Your task to perform on an android device: turn on translation in the chrome app Image 0: 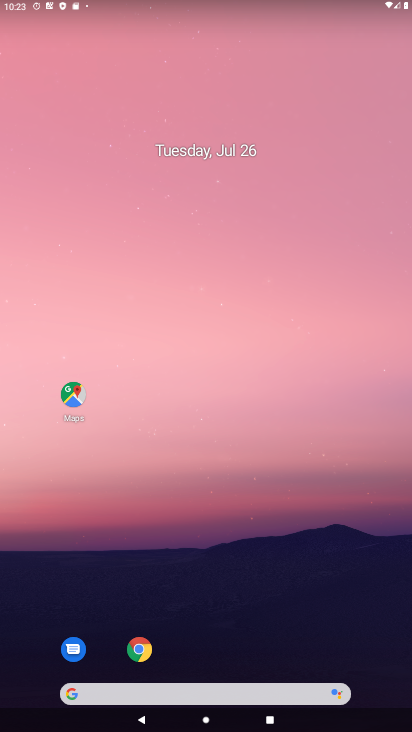
Step 0: click (268, 249)
Your task to perform on an android device: turn on translation in the chrome app Image 1: 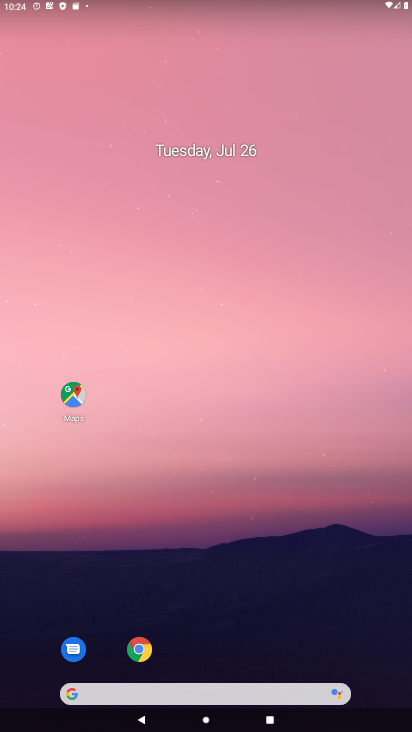
Step 1: drag from (189, 637) to (180, 128)
Your task to perform on an android device: turn on translation in the chrome app Image 2: 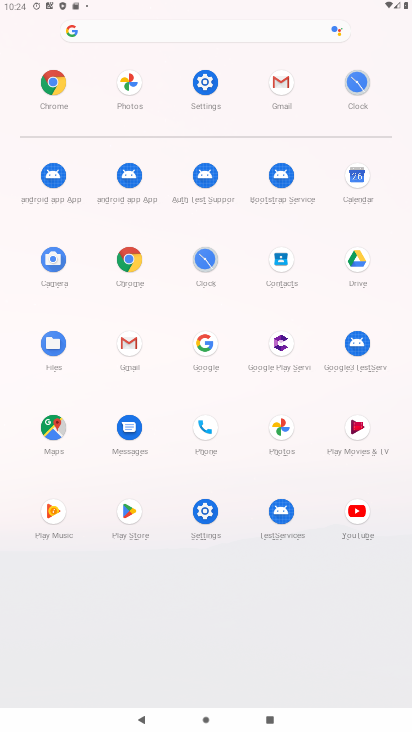
Step 2: click (135, 262)
Your task to perform on an android device: turn on translation in the chrome app Image 3: 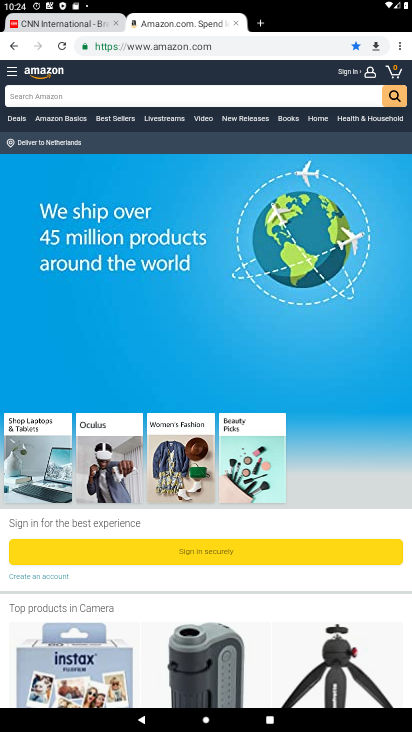
Step 3: drag from (401, 41) to (326, 306)
Your task to perform on an android device: turn on translation in the chrome app Image 4: 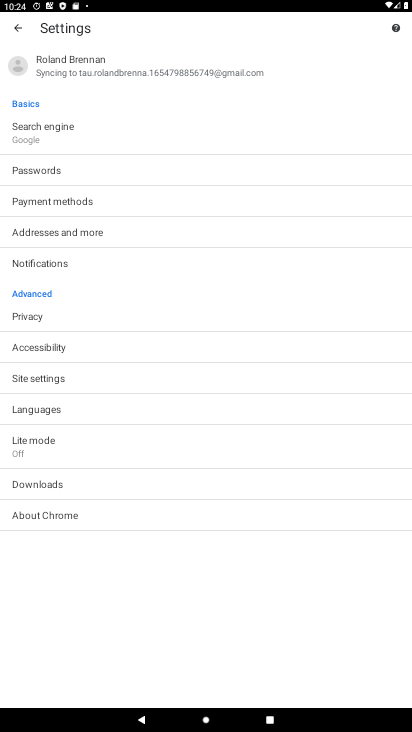
Step 4: click (51, 410)
Your task to perform on an android device: turn on translation in the chrome app Image 5: 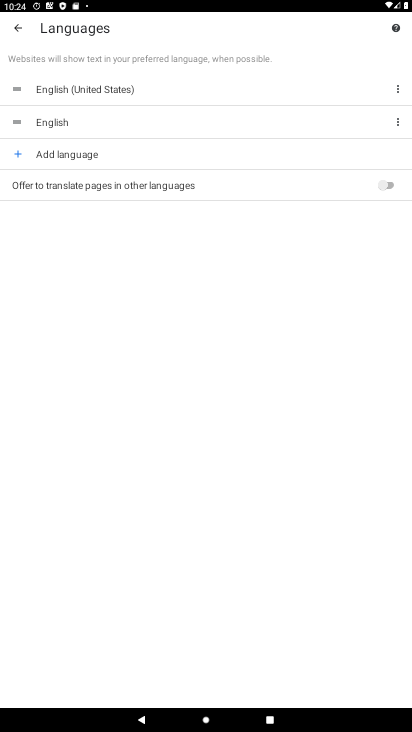
Step 5: click (356, 186)
Your task to perform on an android device: turn on translation in the chrome app Image 6: 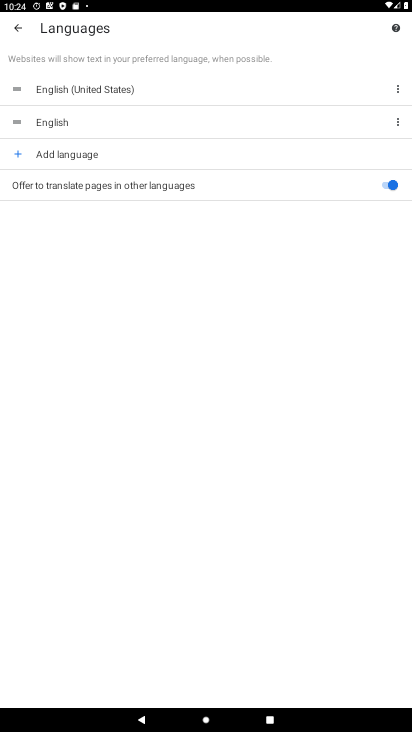
Step 6: task complete